Your task to perform on an android device: check storage Image 0: 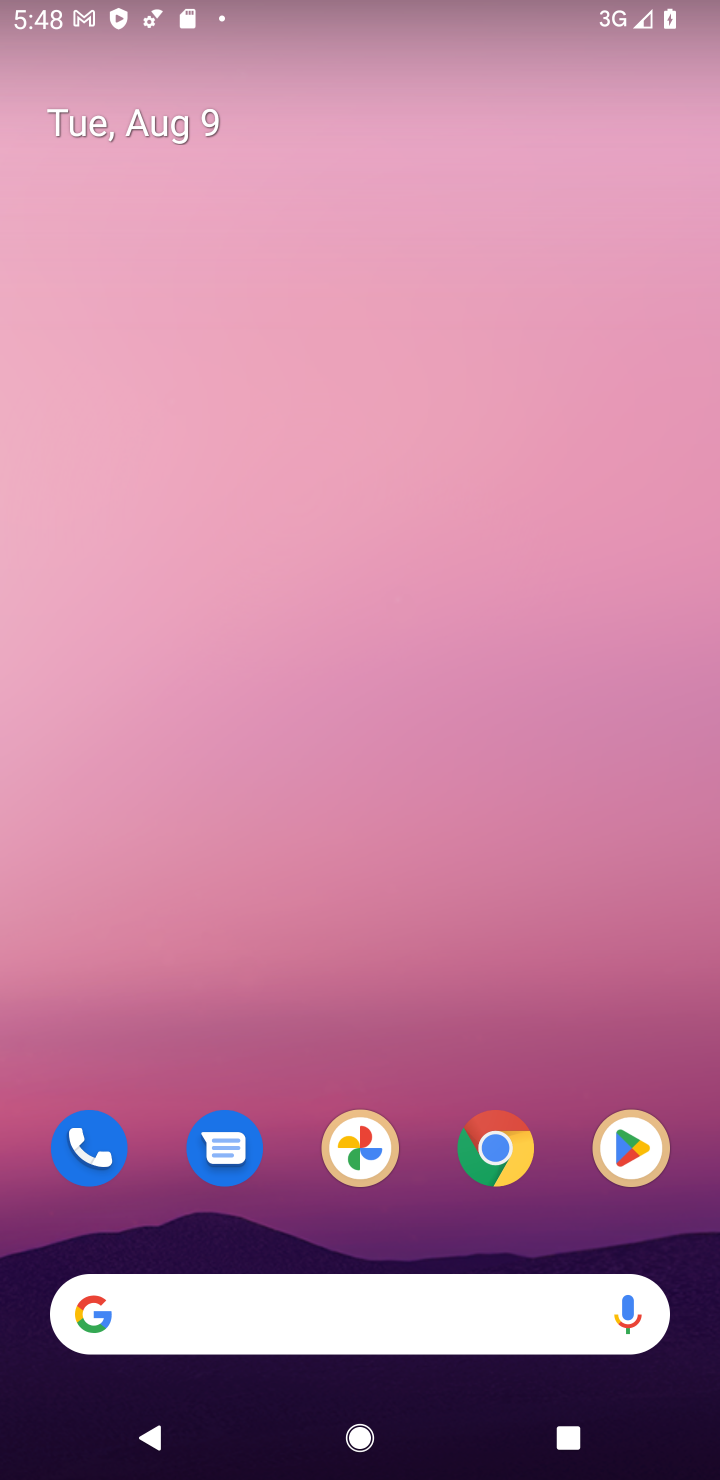
Step 0: drag from (284, 185) to (273, 425)
Your task to perform on an android device: check storage Image 1: 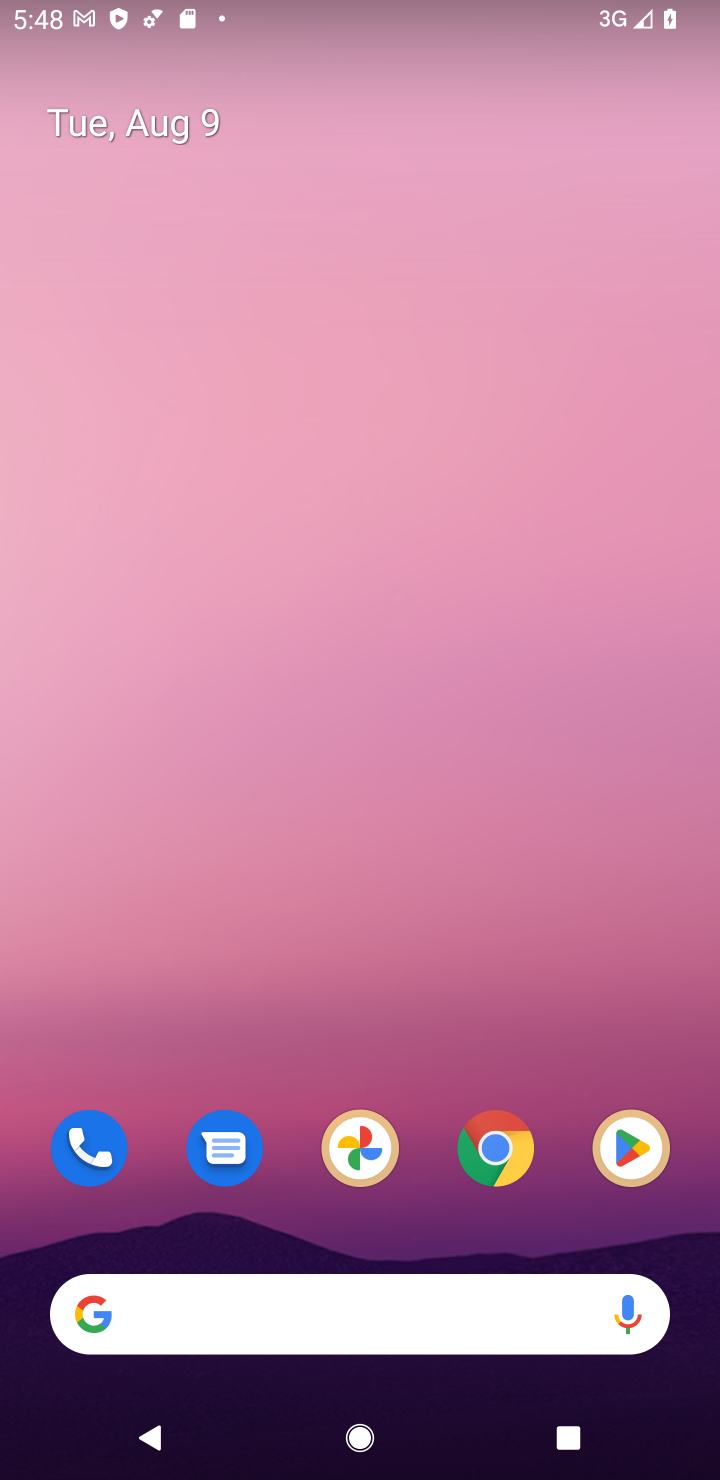
Step 1: drag from (379, 678) to (475, 89)
Your task to perform on an android device: check storage Image 2: 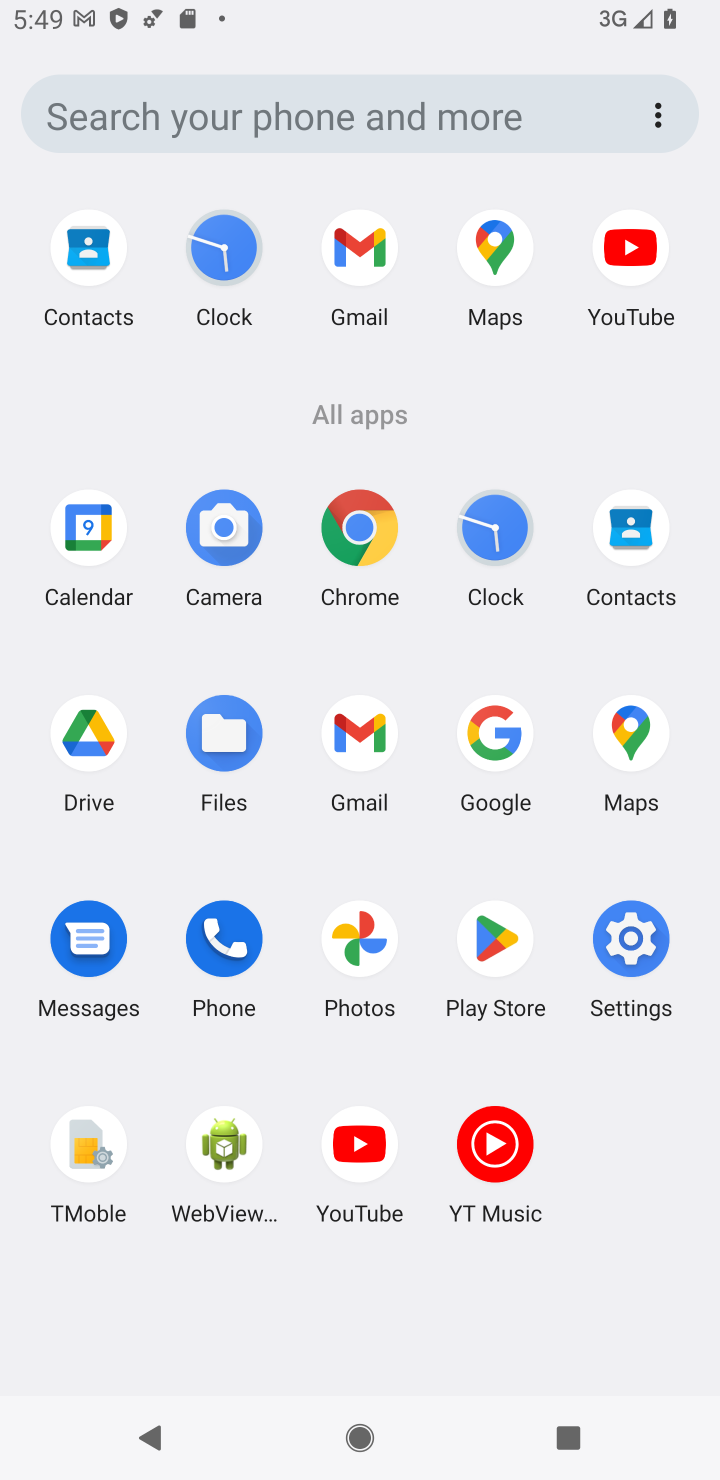
Step 2: click (624, 962)
Your task to perform on an android device: check storage Image 3: 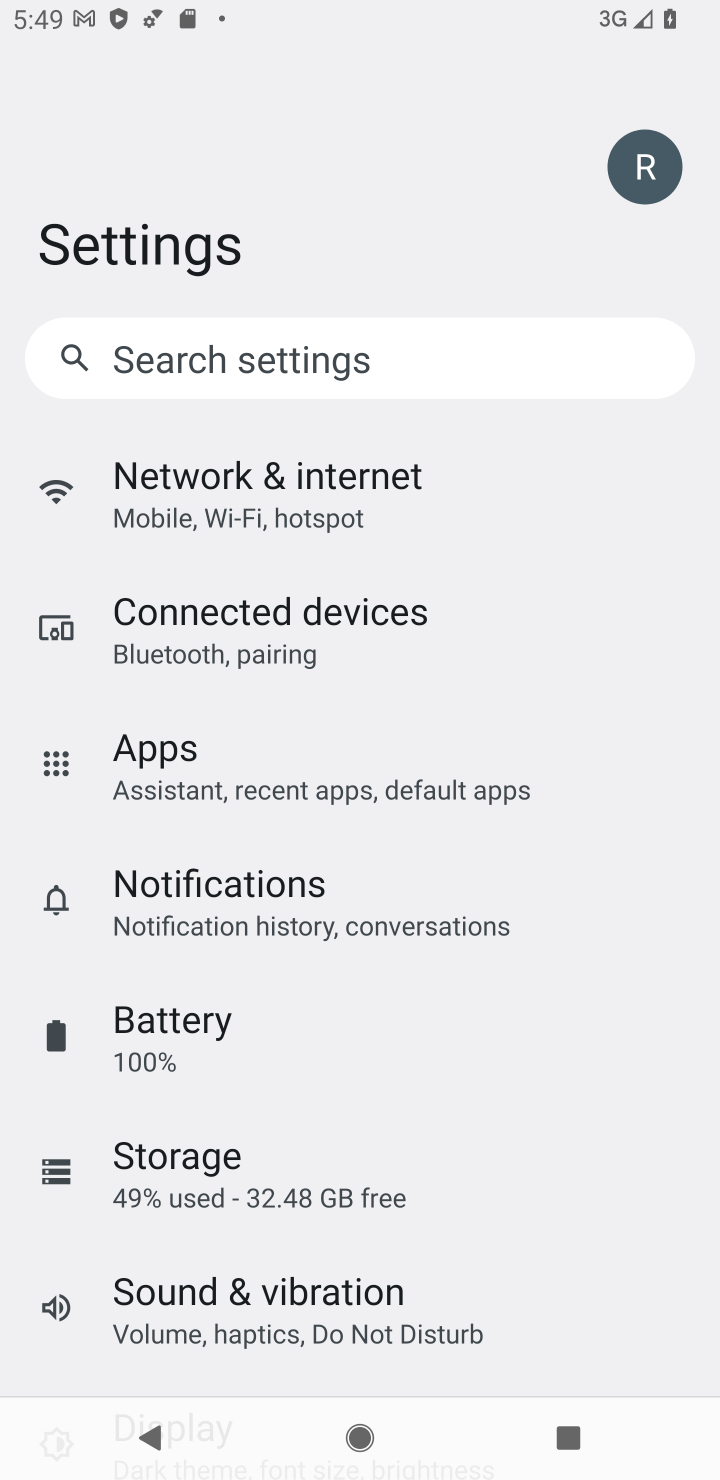
Step 3: click (209, 1187)
Your task to perform on an android device: check storage Image 4: 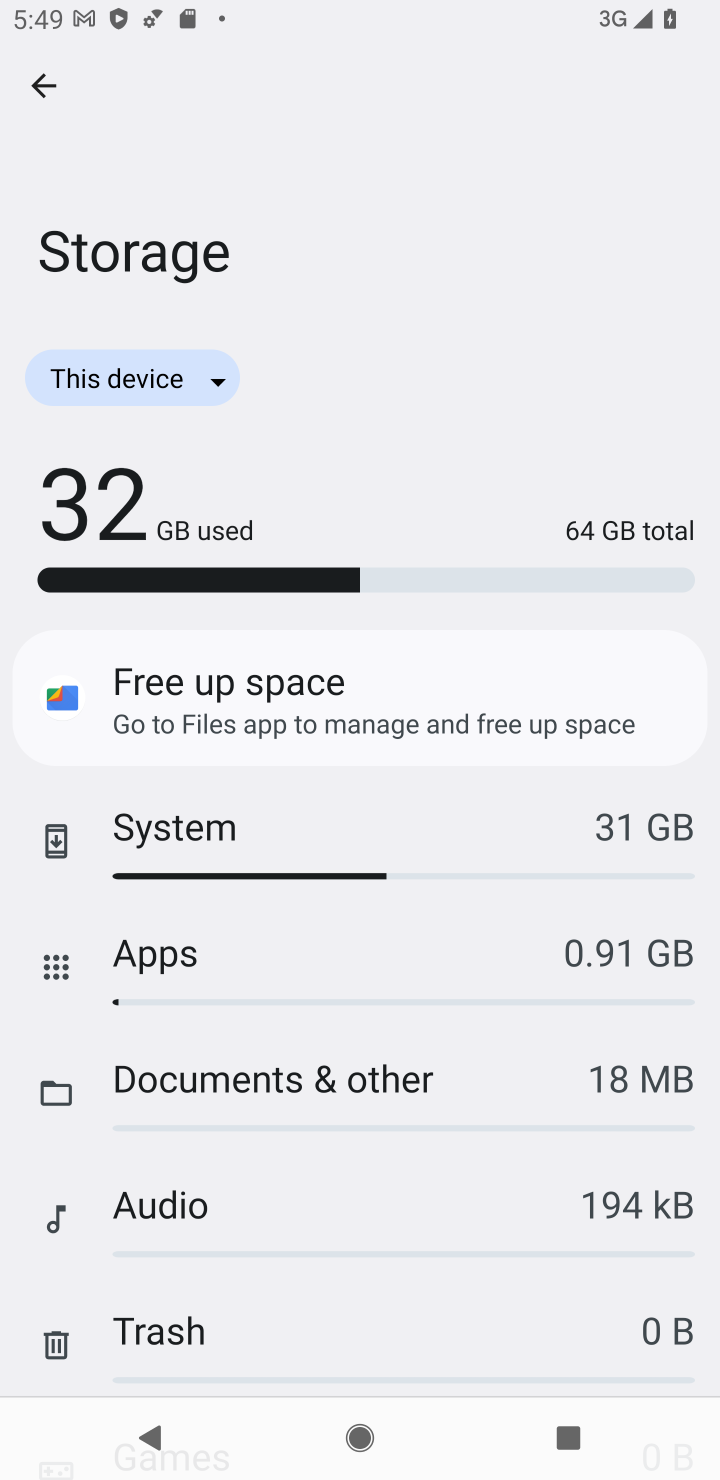
Step 4: task complete